Your task to perform on an android device: turn off priority inbox in the gmail app Image 0: 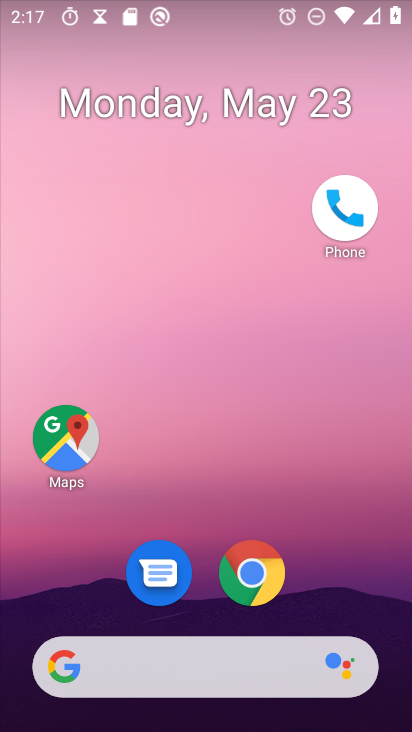
Step 0: press home button
Your task to perform on an android device: turn off priority inbox in the gmail app Image 1: 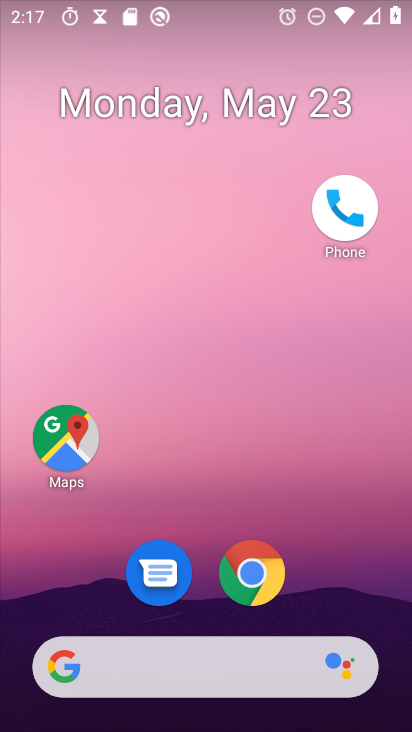
Step 1: drag from (165, 674) to (253, 125)
Your task to perform on an android device: turn off priority inbox in the gmail app Image 2: 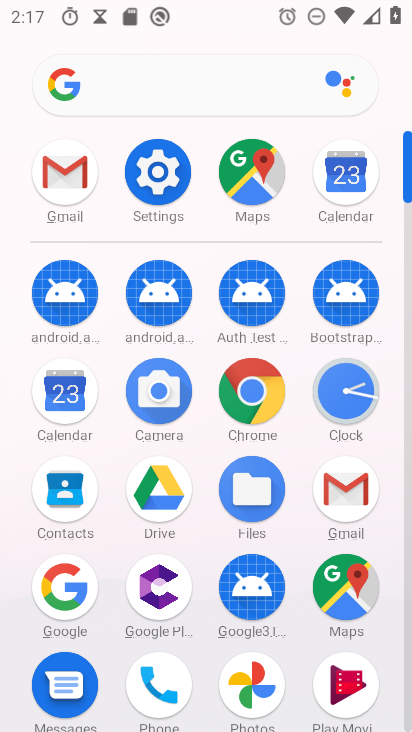
Step 2: click (58, 178)
Your task to perform on an android device: turn off priority inbox in the gmail app Image 3: 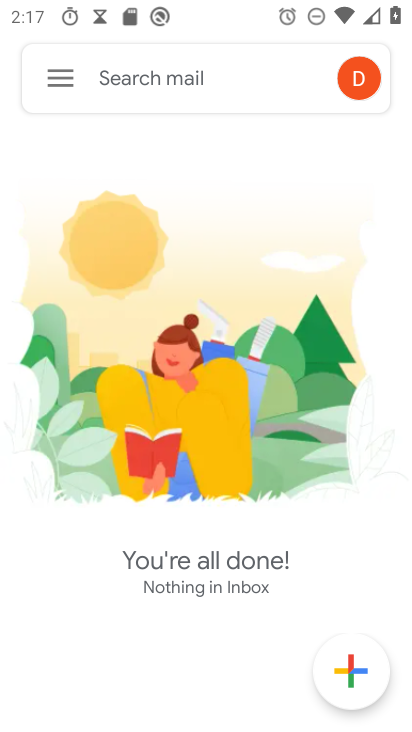
Step 3: click (54, 86)
Your task to perform on an android device: turn off priority inbox in the gmail app Image 4: 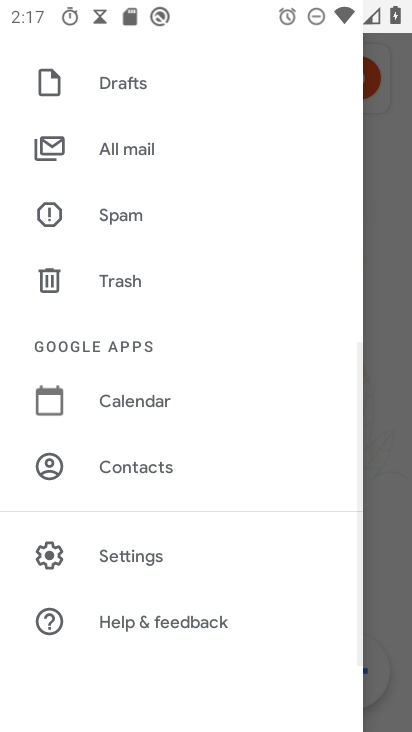
Step 4: click (123, 548)
Your task to perform on an android device: turn off priority inbox in the gmail app Image 5: 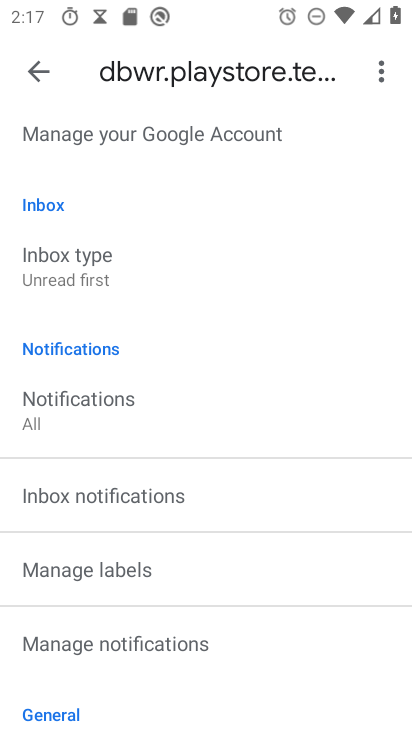
Step 5: click (68, 276)
Your task to perform on an android device: turn off priority inbox in the gmail app Image 6: 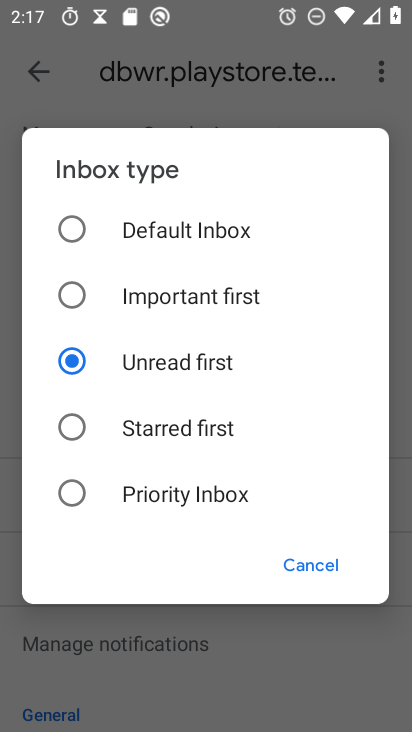
Step 6: task complete